Your task to perform on an android device: Open sound settings Image 0: 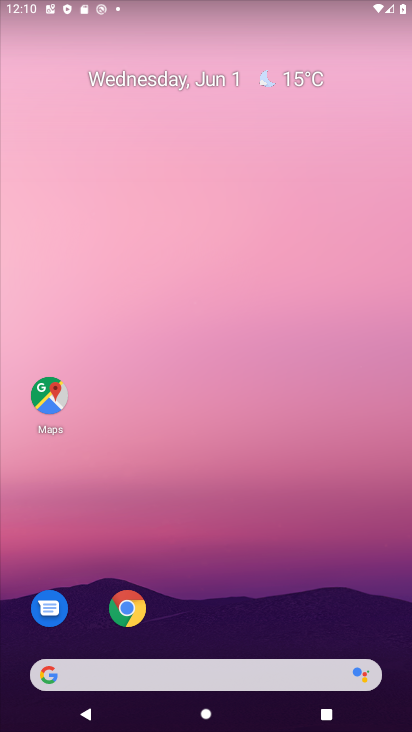
Step 0: drag from (199, 540) to (302, 18)
Your task to perform on an android device: Open sound settings Image 1: 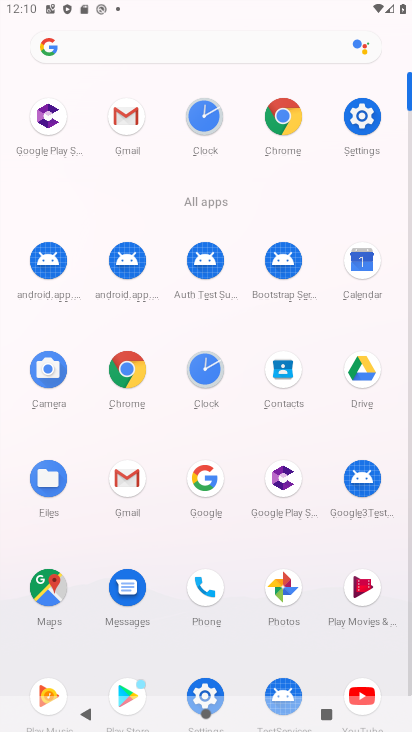
Step 1: click (360, 143)
Your task to perform on an android device: Open sound settings Image 2: 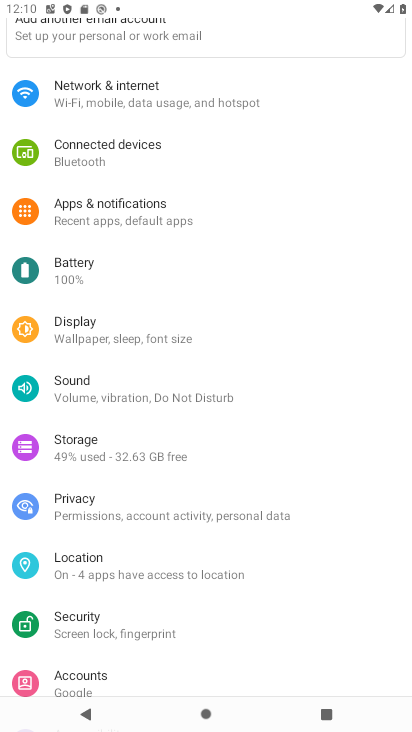
Step 2: click (124, 390)
Your task to perform on an android device: Open sound settings Image 3: 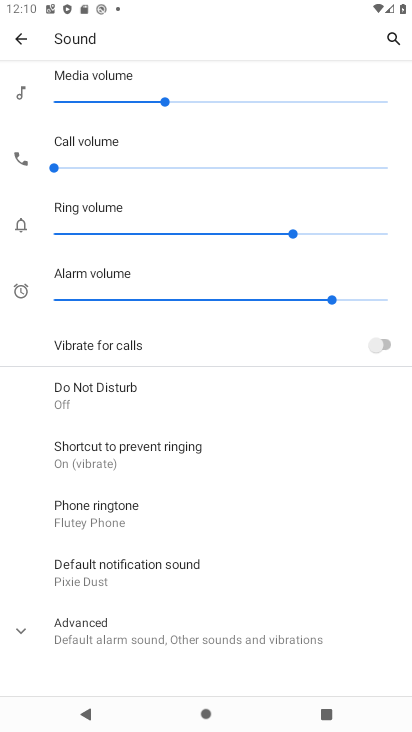
Step 3: task complete